Your task to perform on an android device: Open the stopwatch Image 0: 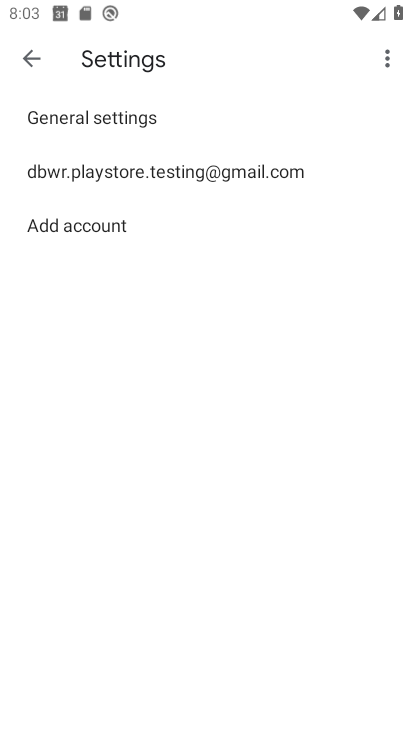
Step 0: press home button
Your task to perform on an android device: Open the stopwatch Image 1: 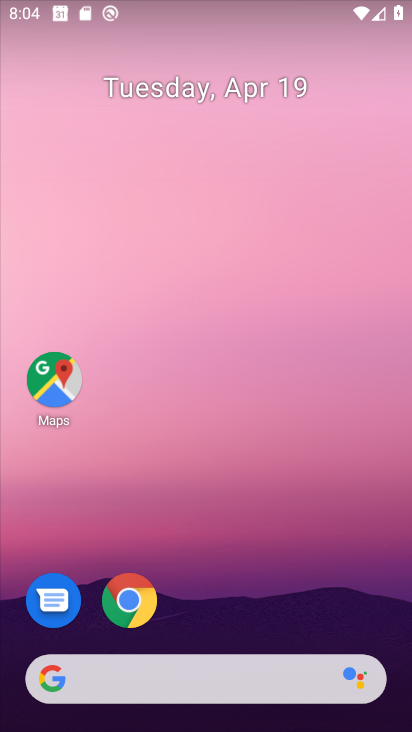
Step 1: drag from (353, 514) to (336, 115)
Your task to perform on an android device: Open the stopwatch Image 2: 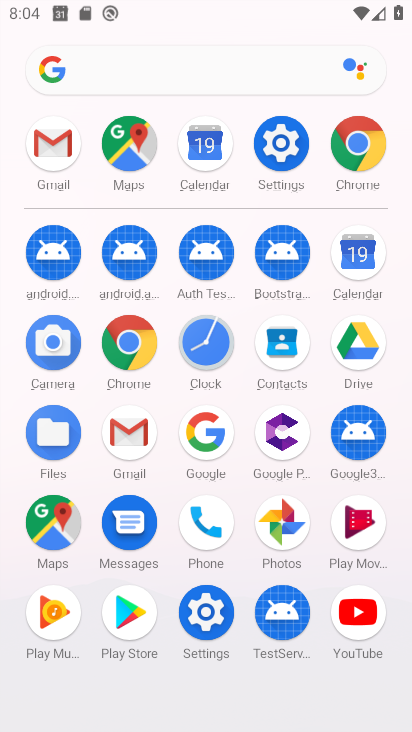
Step 2: click (209, 339)
Your task to perform on an android device: Open the stopwatch Image 3: 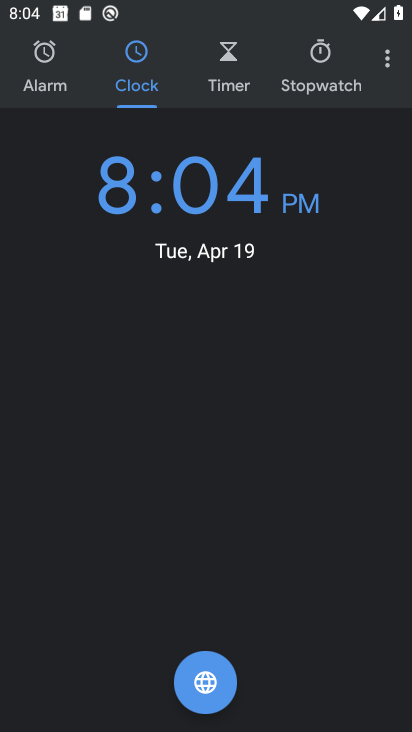
Step 3: click (315, 70)
Your task to perform on an android device: Open the stopwatch Image 4: 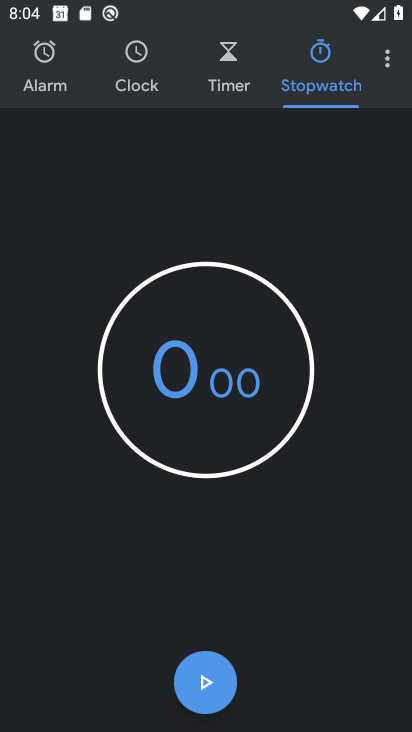
Step 4: task complete